Your task to perform on an android device: What's the weather going to be tomorrow? Image 0: 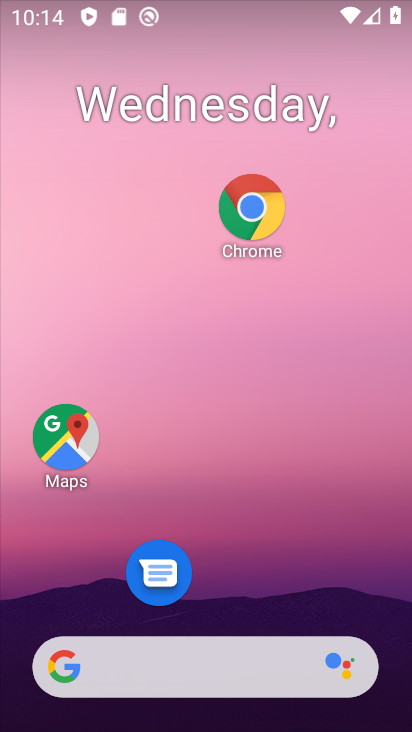
Step 0: drag from (268, 558) to (257, 173)
Your task to perform on an android device: What's the weather going to be tomorrow? Image 1: 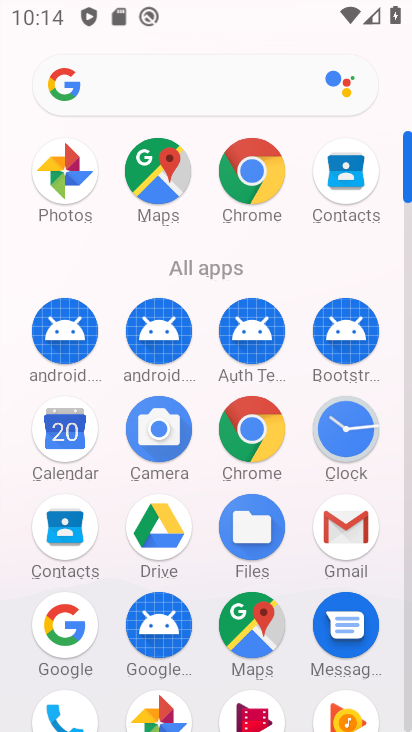
Step 1: click (250, 194)
Your task to perform on an android device: What's the weather going to be tomorrow? Image 2: 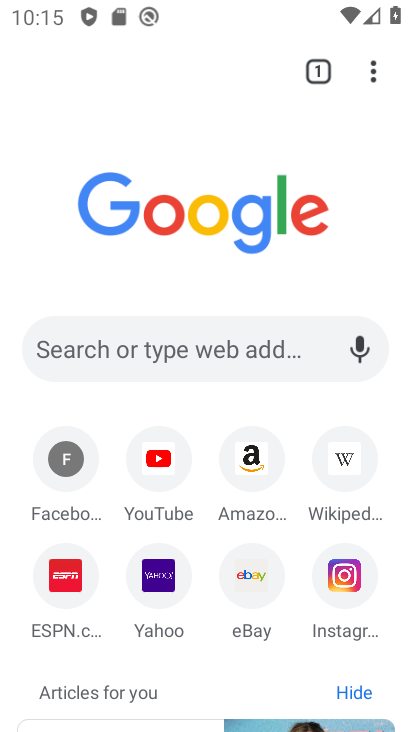
Step 2: click (271, 352)
Your task to perform on an android device: What's the weather going to be tomorrow? Image 3: 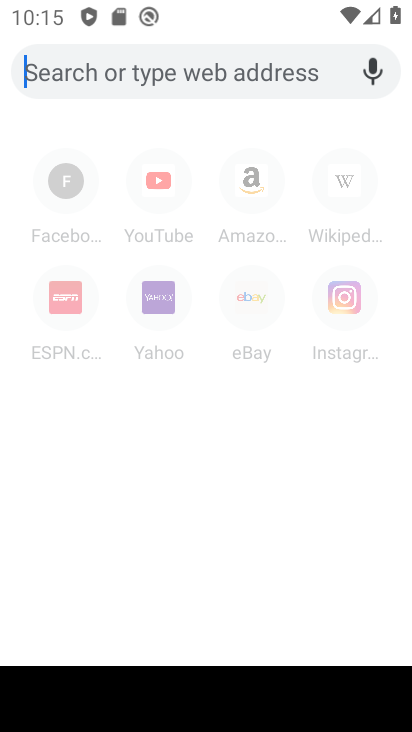
Step 3: type "what's the weather going to be tomorrow"
Your task to perform on an android device: What's the weather going to be tomorrow? Image 4: 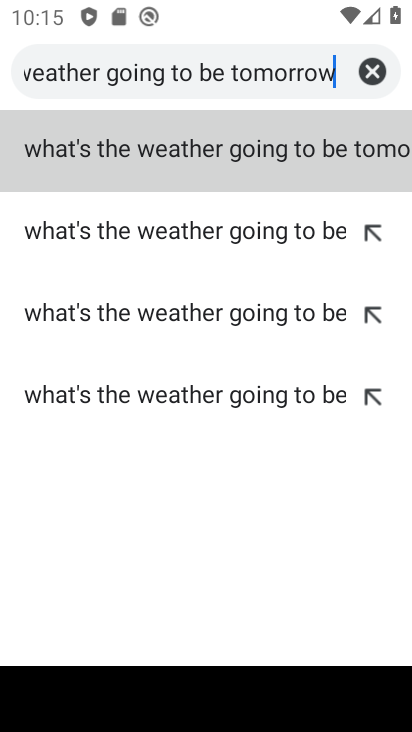
Step 4: click (199, 139)
Your task to perform on an android device: What's the weather going to be tomorrow? Image 5: 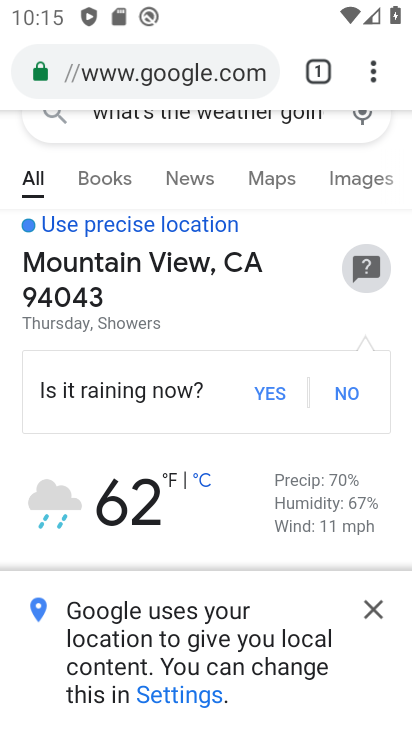
Step 5: task complete